Your task to perform on an android device: Go to Amazon Image 0: 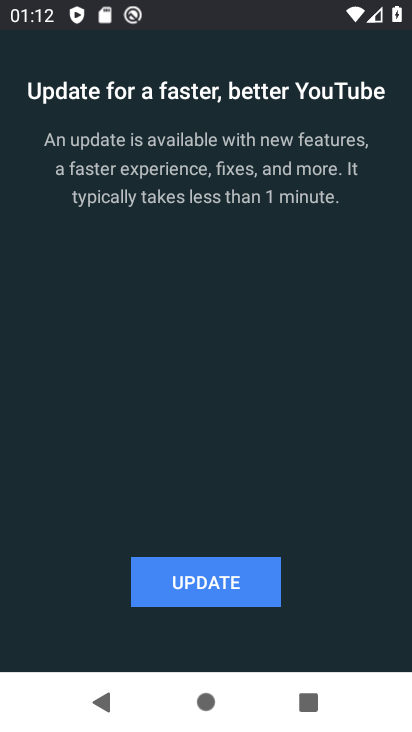
Step 0: press home button
Your task to perform on an android device: Go to Amazon Image 1: 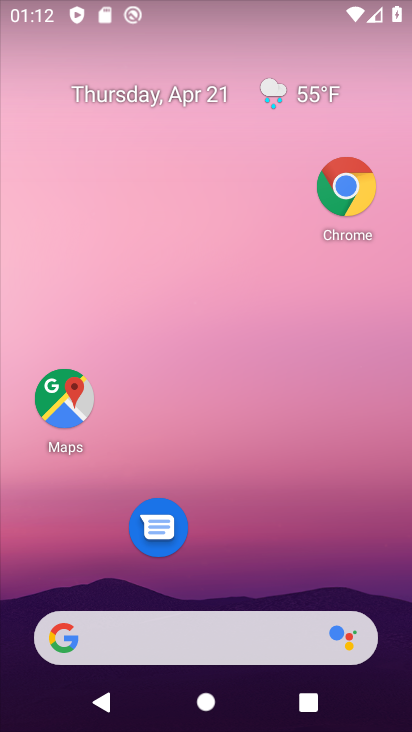
Step 1: click (345, 188)
Your task to perform on an android device: Go to Amazon Image 2: 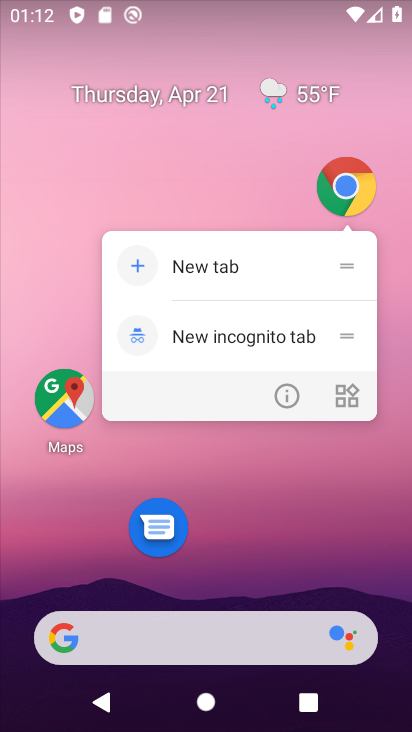
Step 2: click (281, 394)
Your task to perform on an android device: Go to Amazon Image 3: 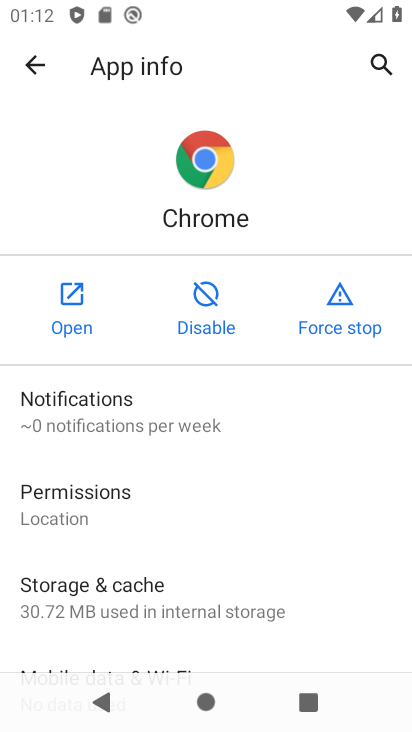
Step 3: click (66, 291)
Your task to perform on an android device: Go to Amazon Image 4: 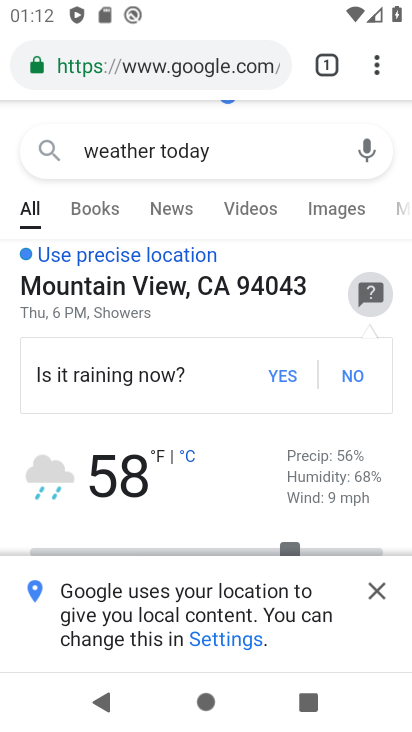
Step 4: click (320, 60)
Your task to perform on an android device: Go to Amazon Image 5: 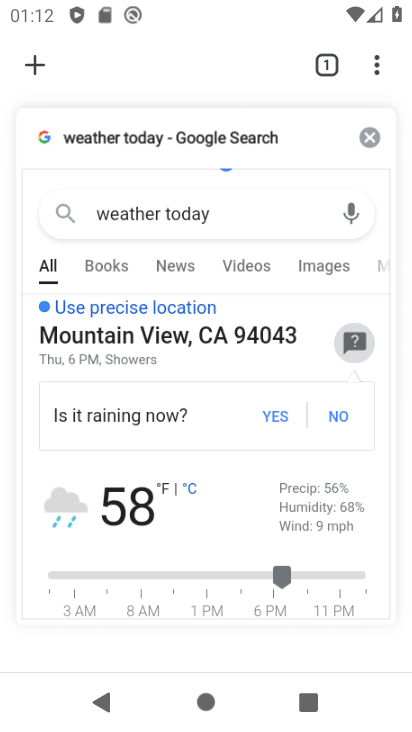
Step 5: click (21, 61)
Your task to perform on an android device: Go to Amazon Image 6: 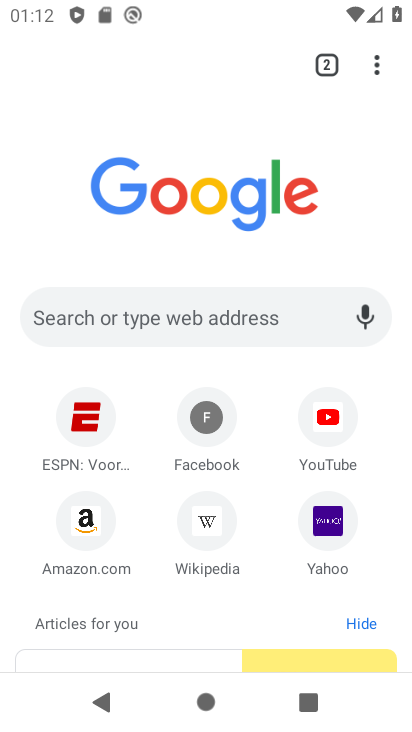
Step 6: click (93, 533)
Your task to perform on an android device: Go to Amazon Image 7: 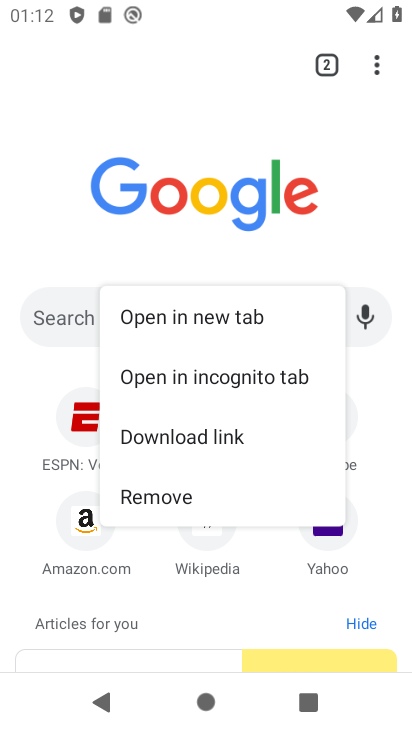
Step 7: click (78, 525)
Your task to perform on an android device: Go to Amazon Image 8: 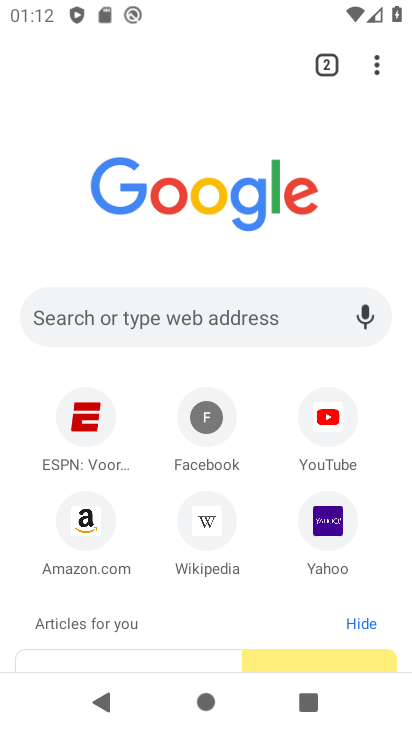
Step 8: click (78, 525)
Your task to perform on an android device: Go to Amazon Image 9: 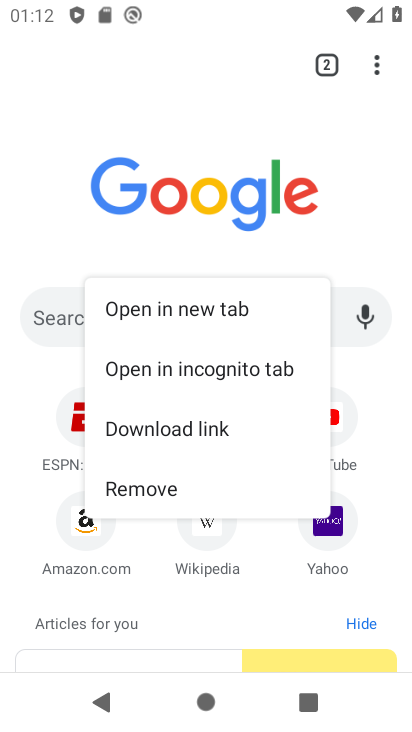
Step 9: click (139, 316)
Your task to perform on an android device: Go to Amazon Image 10: 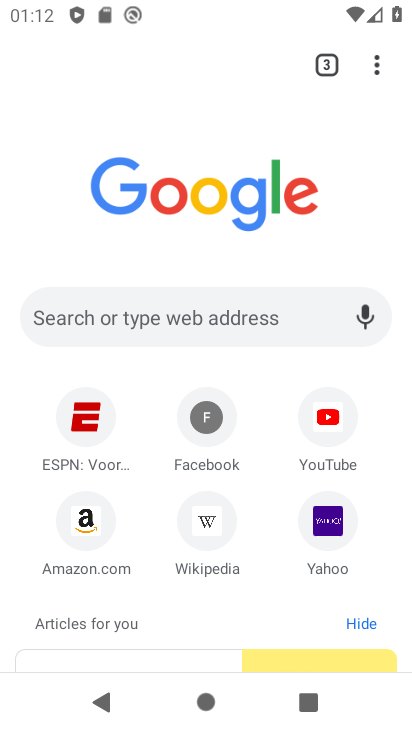
Step 10: click (78, 539)
Your task to perform on an android device: Go to Amazon Image 11: 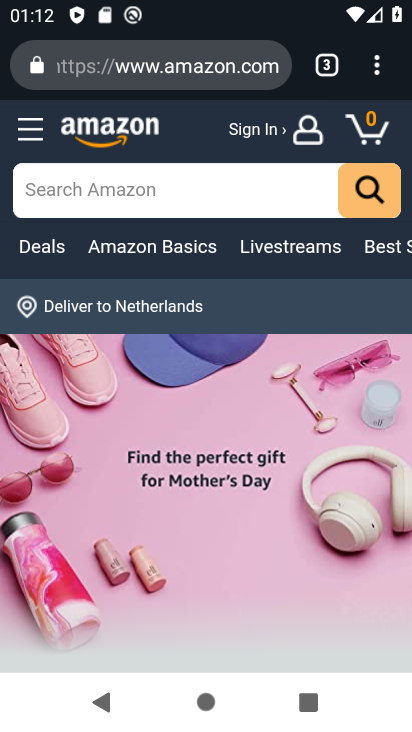
Step 11: task complete